Your task to perform on an android device: turn off smart reply in the gmail app Image 0: 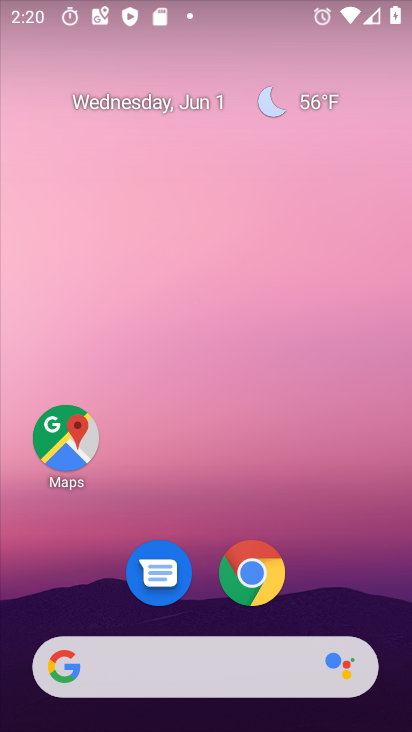
Step 0: drag from (337, 559) to (291, 0)
Your task to perform on an android device: turn off smart reply in the gmail app Image 1: 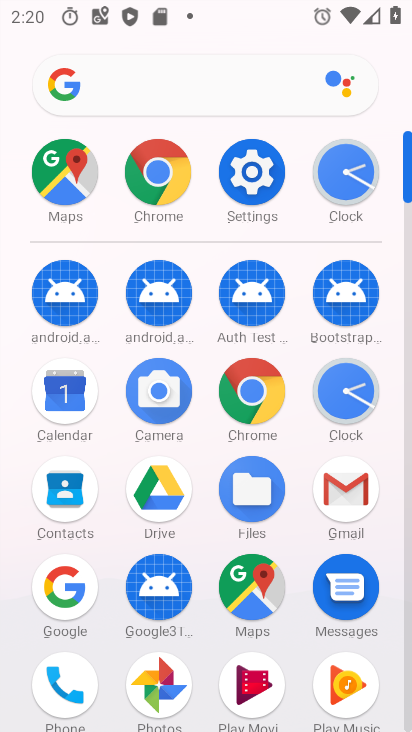
Step 1: click (340, 501)
Your task to perform on an android device: turn off smart reply in the gmail app Image 2: 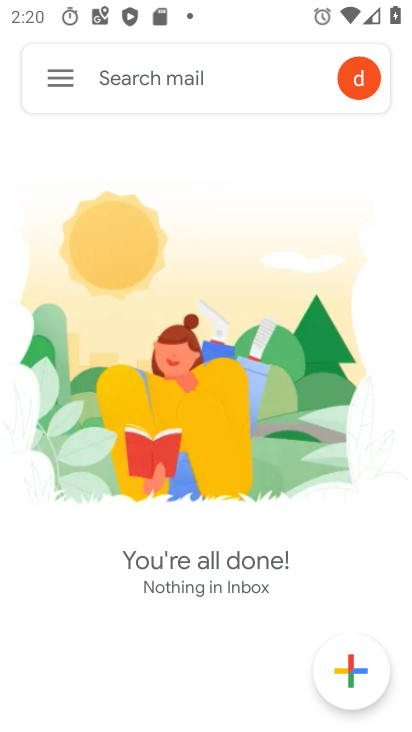
Step 2: click (65, 77)
Your task to perform on an android device: turn off smart reply in the gmail app Image 3: 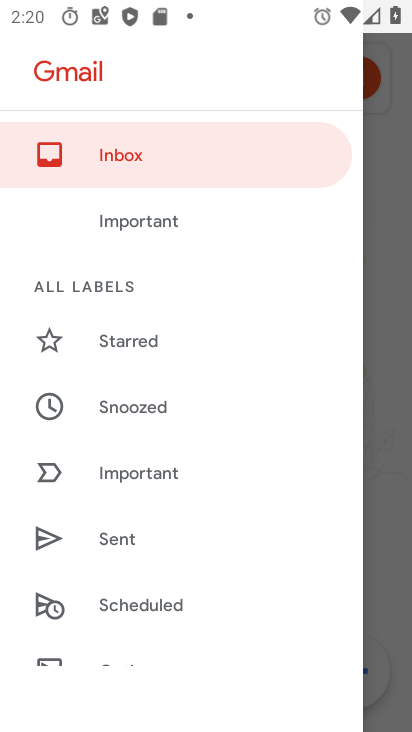
Step 3: drag from (193, 530) to (264, 169)
Your task to perform on an android device: turn off smart reply in the gmail app Image 4: 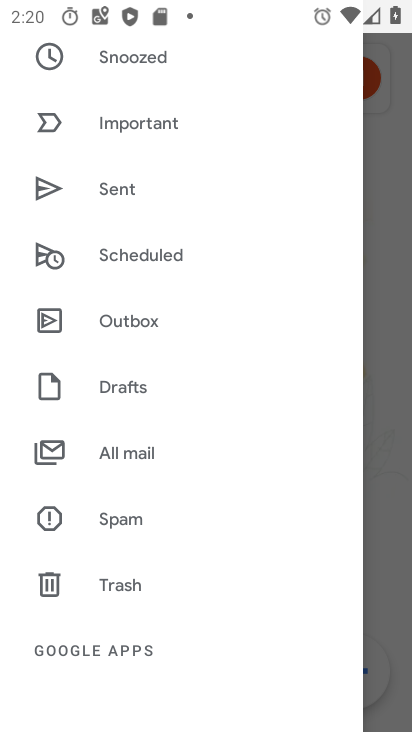
Step 4: drag from (207, 564) to (263, 225)
Your task to perform on an android device: turn off smart reply in the gmail app Image 5: 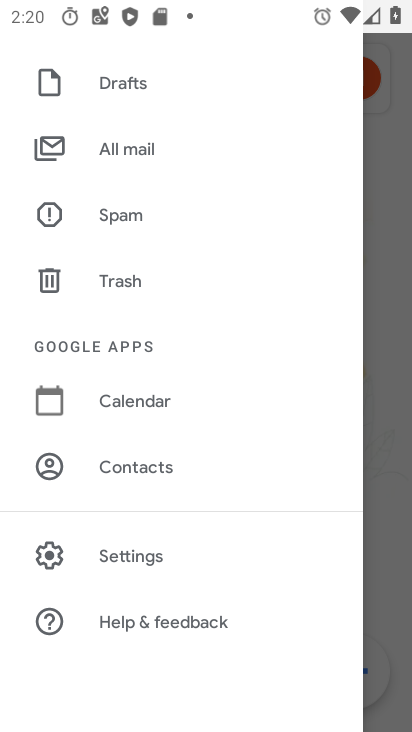
Step 5: click (122, 546)
Your task to perform on an android device: turn off smart reply in the gmail app Image 6: 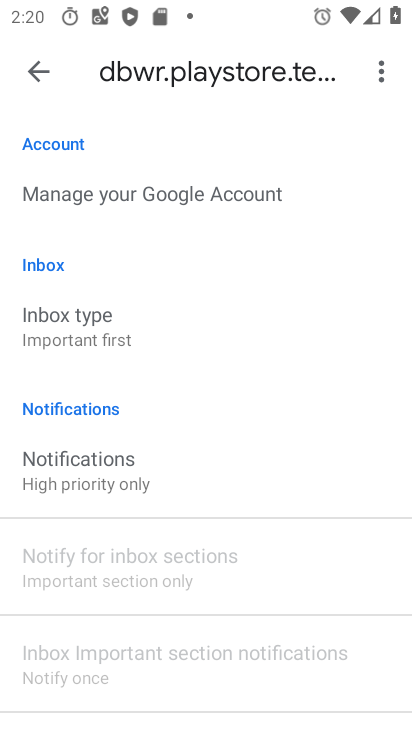
Step 6: drag from (122, 543) to (204, 236)
Your task to perform on an android device: turn off smart reply in the gmail app Image 7: 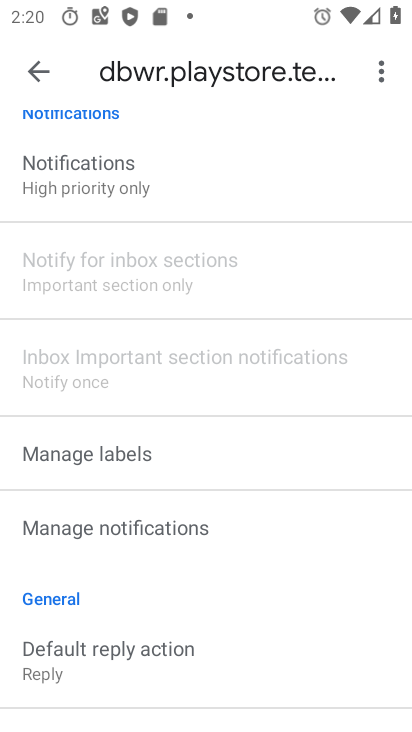
Step 7: drag from (141, 577) to (172, 227)
Your task to perform on an android device: turn off smart reply in the gmail app Image 8: 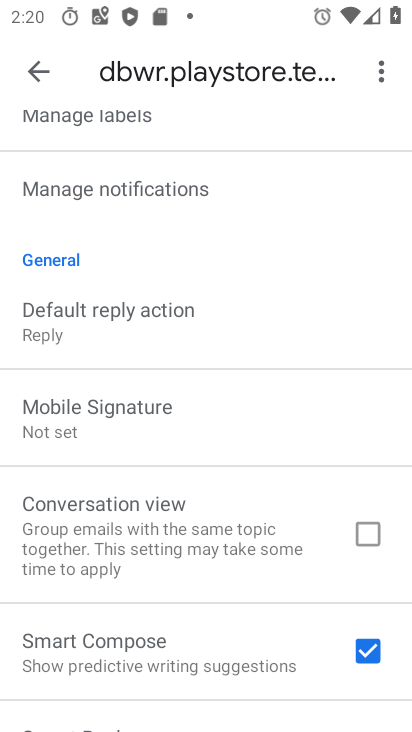
Step 8: drag from (106, 583) to (154, 263)
Your task to perform on an android device: turn off smart reply in the gmail app Image 9: 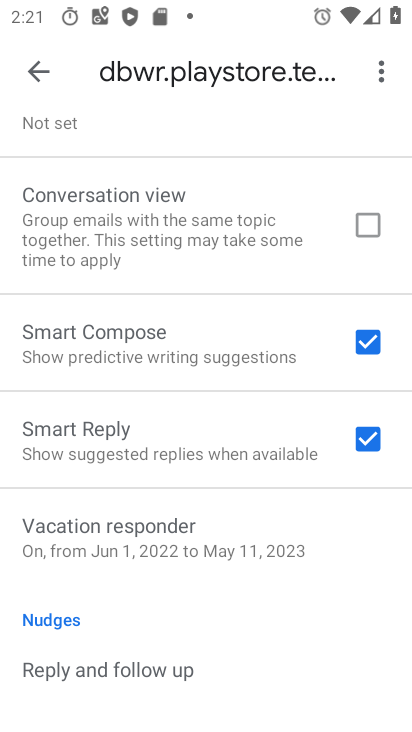
Step 9: click (362, 425)
Your task to perform on an android device: turn off smart reply in the gmail app Image 10: 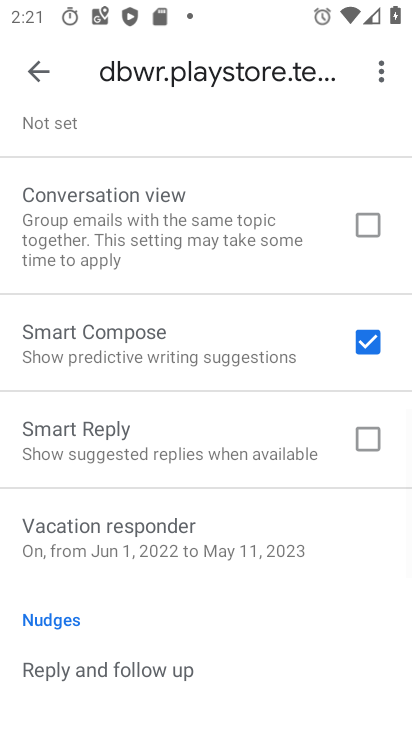
Step 10: task complete